Your task to perform on an android device: Go to accessibility settings Image 0: 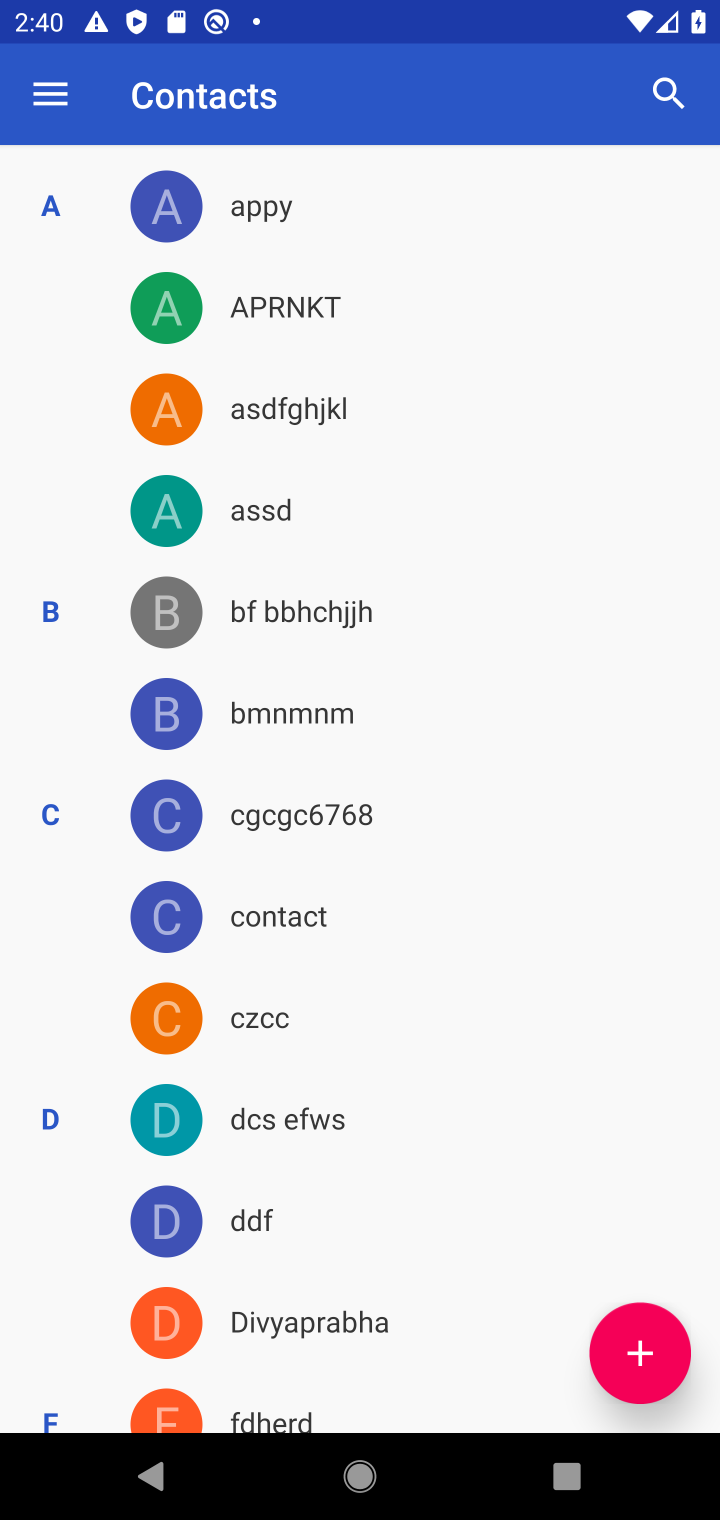
Step 0: press home button
Your task to perform on an android device: Go to accessibility settings Image 1: 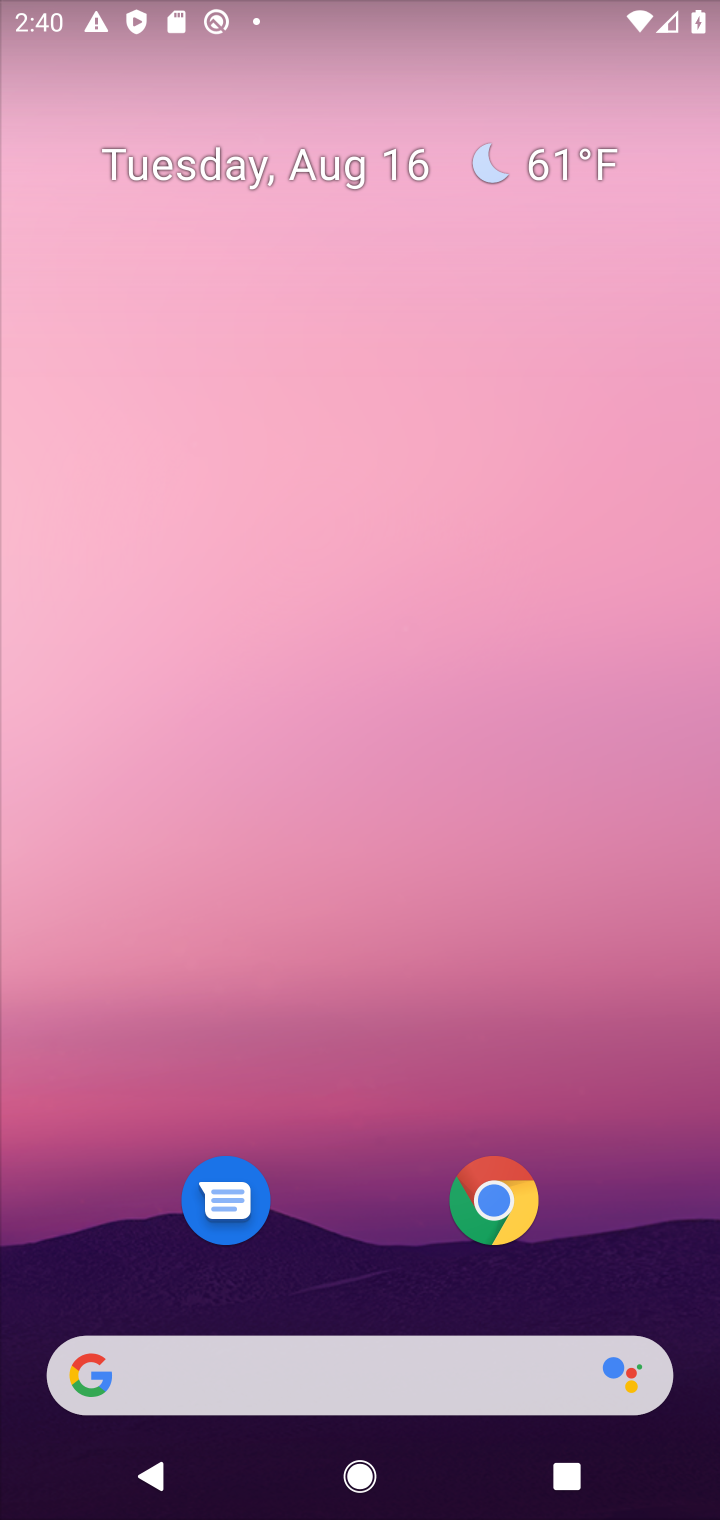
Step 1: task complete